Your task to perform on an android device: Go to Maps Image 0: 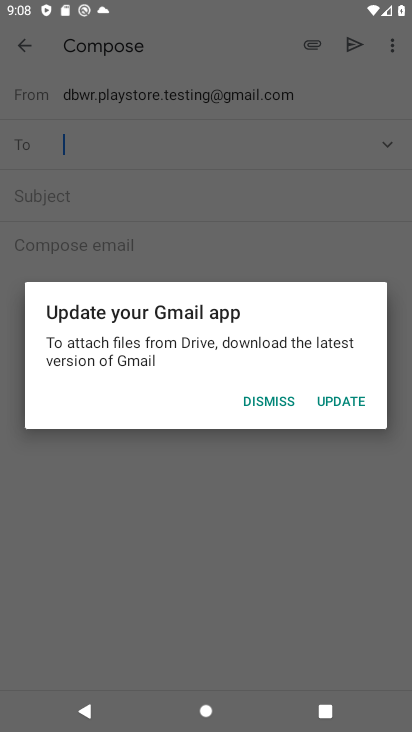
Step 0: press home button
Your task to perform on an android device: Go to Maps Image 1: 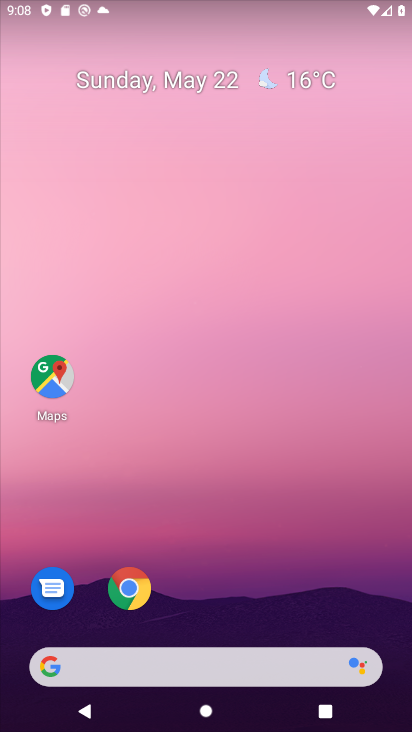
Step 1: click (45, 355)
Your task to perform on an android device: Go to Maps Image 2: 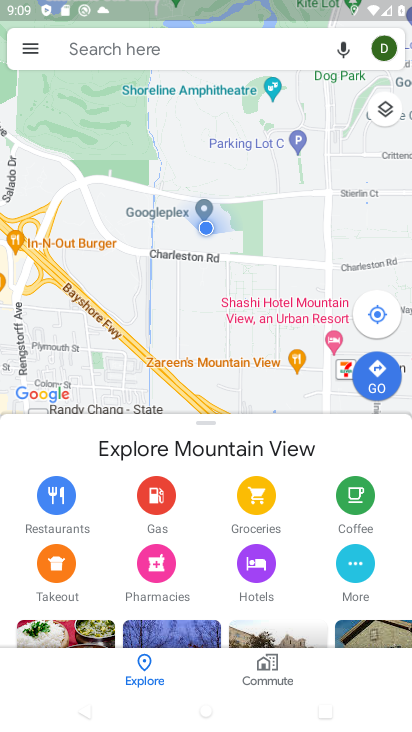
Step 2: task complete